Your task to perform on an android device: Clear all items from cart on bestbuy. Add "razer deathadder" to the cart on bestbuy, then select checkout. Image 0: 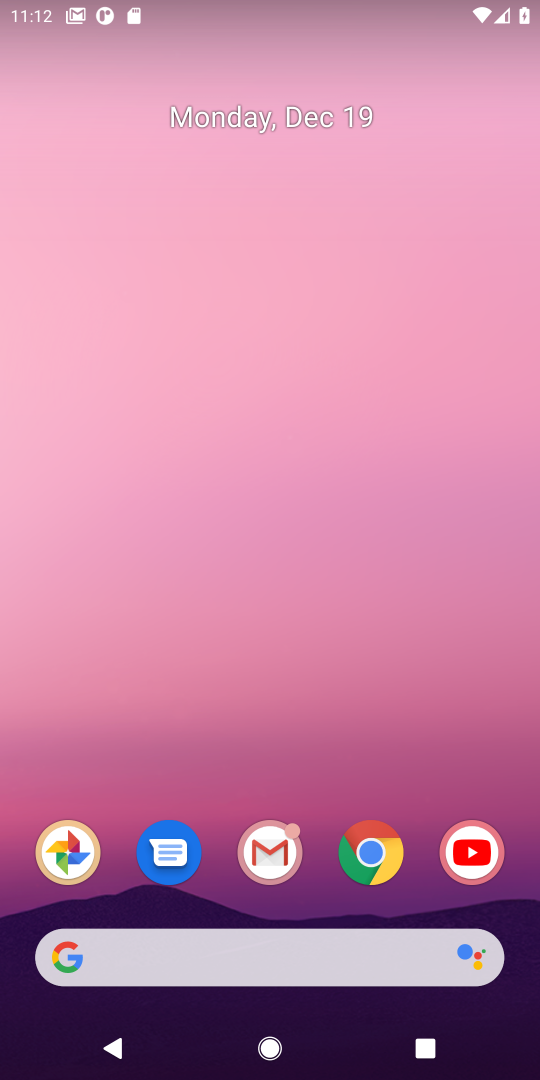
Step 0: click (377, 858)
Your task to perform on an android device: Clear all items from cart on bestbuy. Add "razer deathadder" to the cart on bestbuy, then select checkout. Image 1: 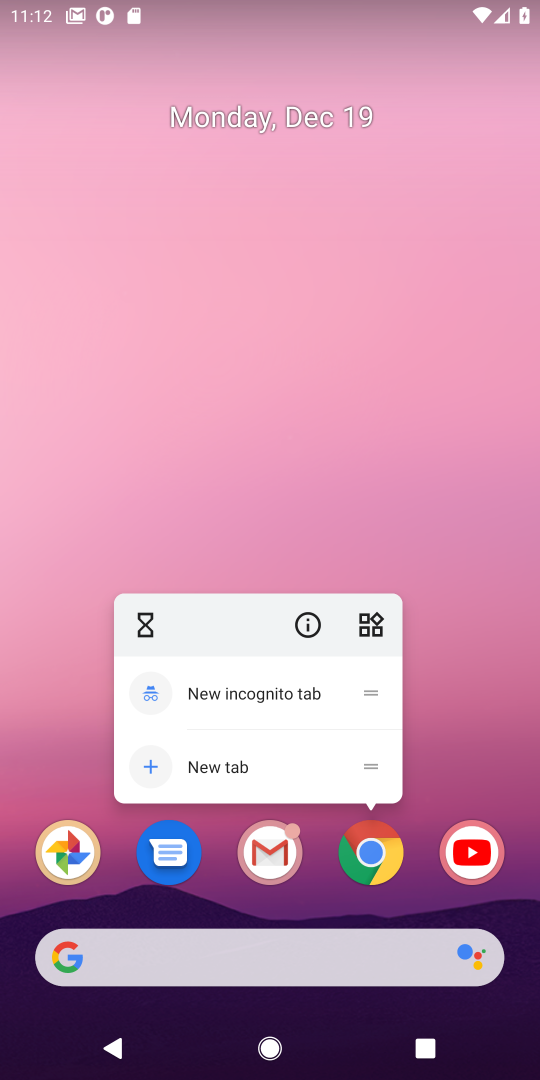
Step 1: click (381, 862)
Your task to perform on an android device: Clear all items from cart on bestbuy. Add "razer deathadder" to the cart on bestbuy, then select checkout. Image 2: 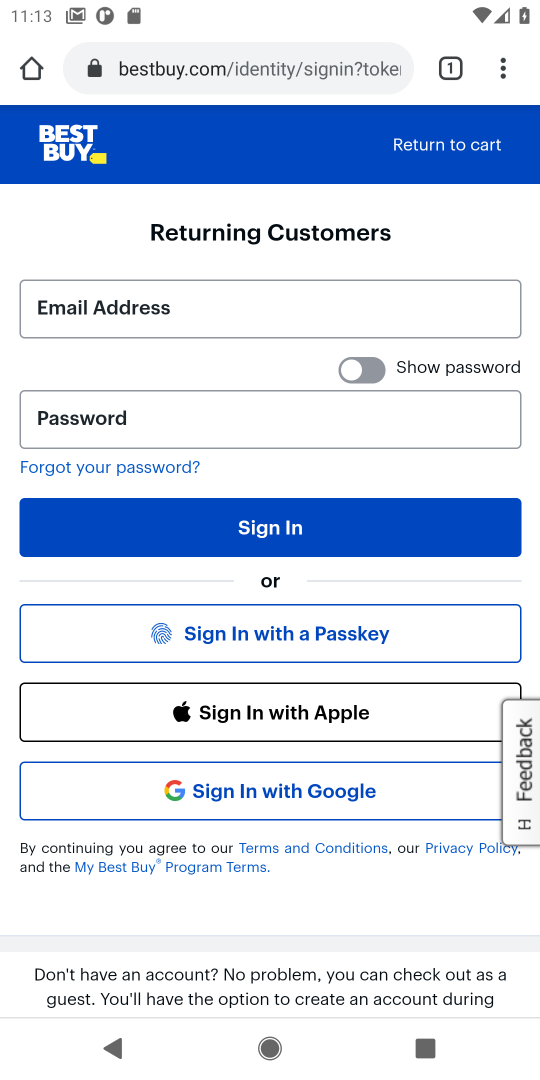
Step 2: press back button
Your task to perform on an android device: Clear all items from cart on bestbuy. Add "razer deathadder" to the cart on bestbuy, then select checkout. Image 3: 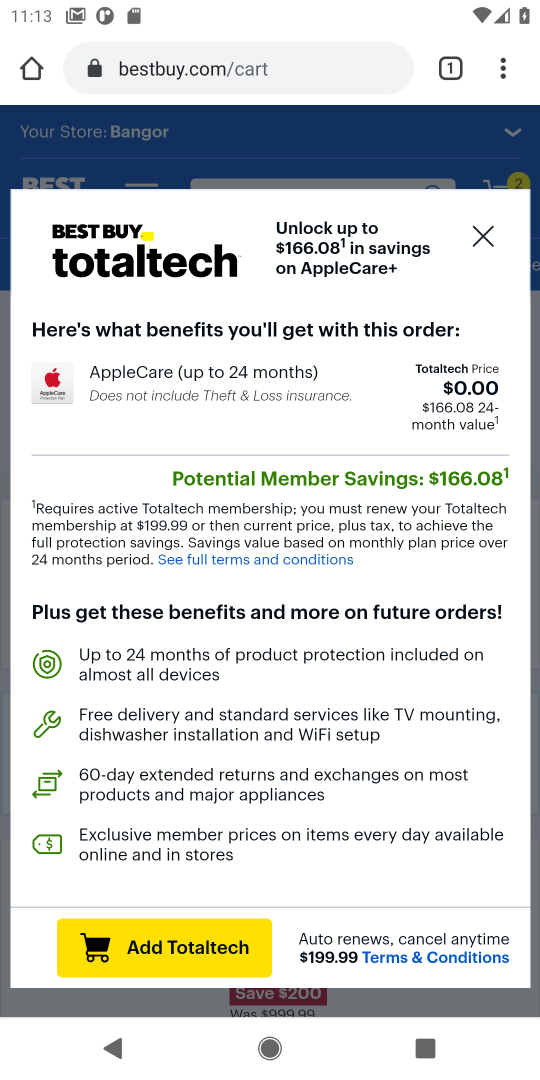
Step 3: click (478, 238)
Your task to perform on an android device: Clear all items from cart on bestbuy. Add "razer deathadder" to the cart on bestbuy, then select checkout. Image 4: 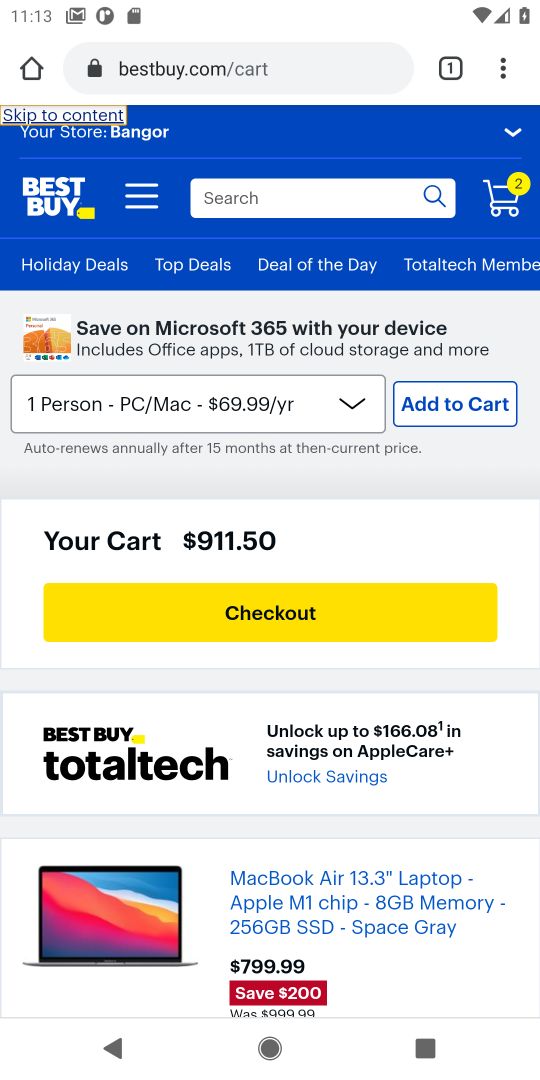
Step 4: drag from (294, 581) to (306, 303)
Your task to perform on an android device: Clear all items from cart on bestbuy. Add "razer deathadder" to the cart on bestbuy, then select checkout. Image 5: 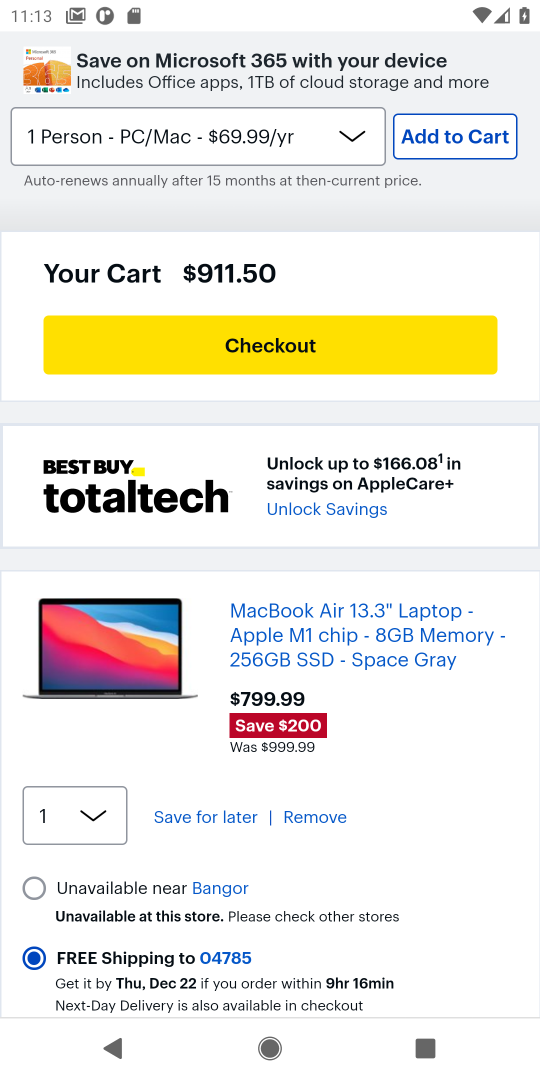
Step 5: click (316, 819)
Your task to perform on an android device: Clear all items from cart on bestbuy. Add "razer deathadder" to the cart on bestbuy, then select checkout. Image 6: 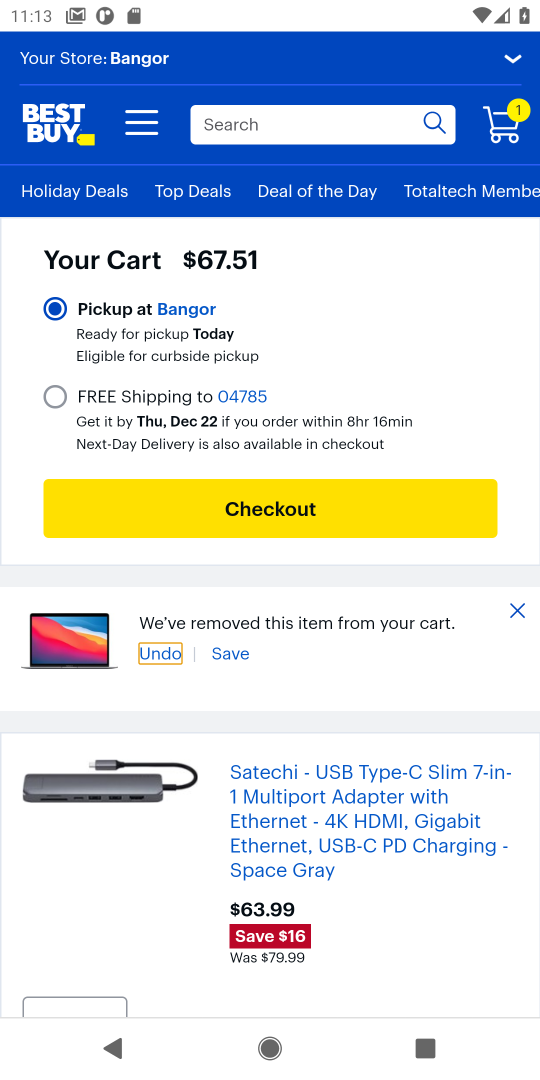
Step 6: drag from (317, 817) to (320, 457)
Your task to perform on an android device: Clear all items from cart on bestbuy. Add "razer deathadder" to the cart on bestbuy, then select checkout. Image 7: 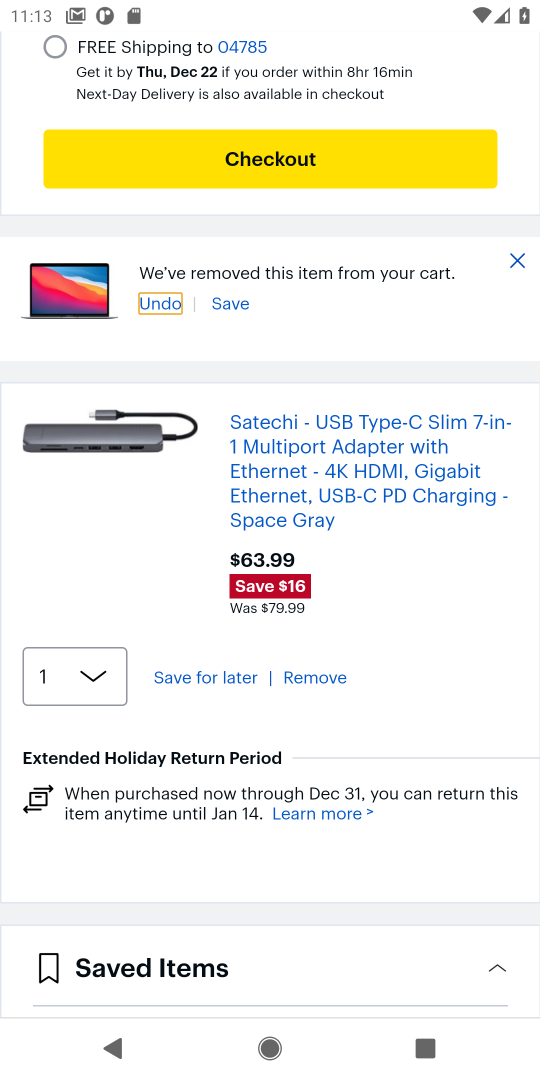
Step 7: click (325, 679)
Your task to perform on an android device: Clear all items from cart on bestbuy. Add "razer deathadder" to the cart on bestbuy, then select checkout. Image 8: 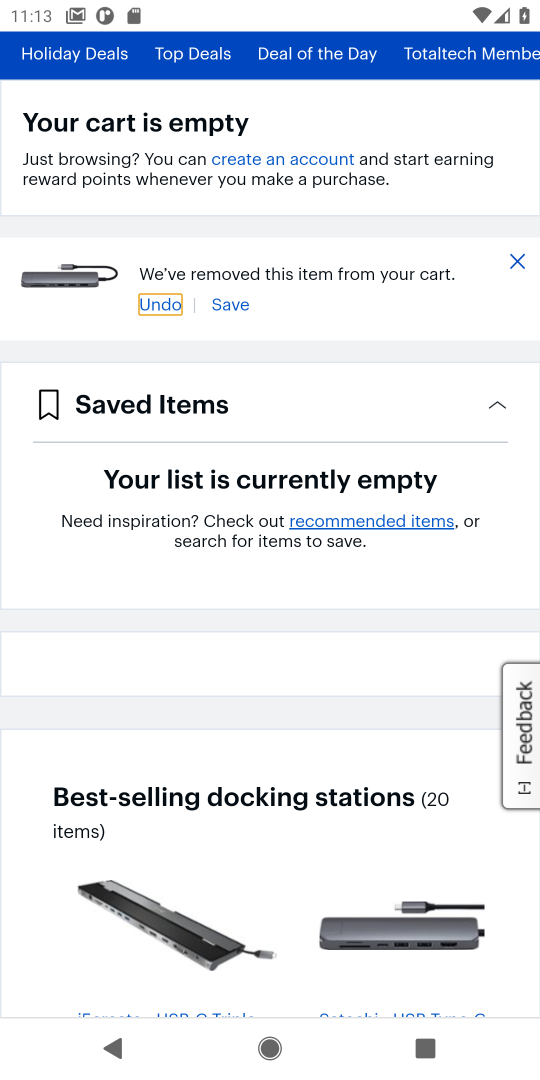
Step 8: drag from (259, 247) to (232, 753)
Your task to perform on an android device: Clear all items from cart on bestbuy. Add "razer deathadder" to the cart on bestbuy, then select checkout. Image 9: 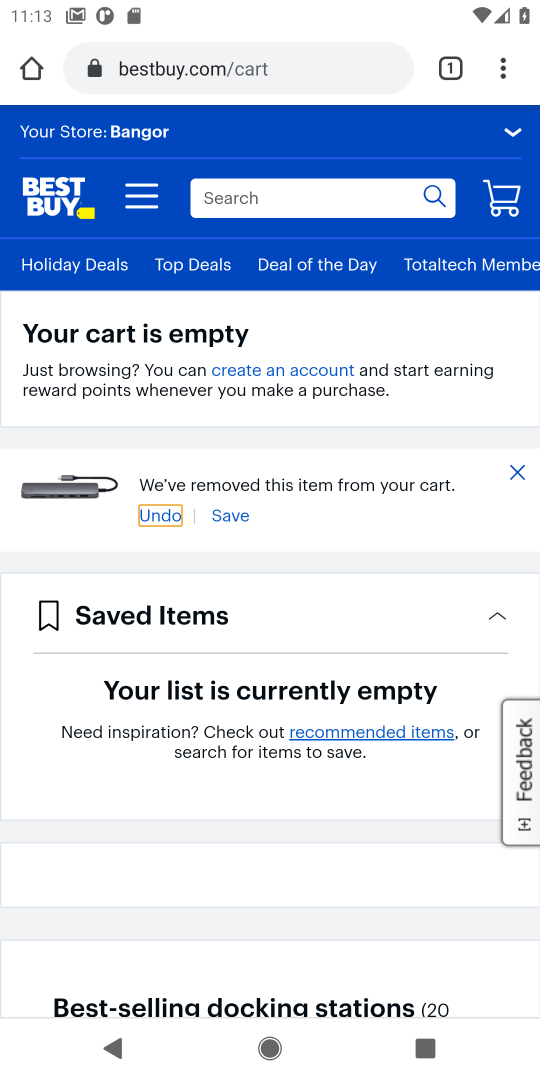
Step 9: click (225, 207)
Your task to perform on an android device: Clear all items from cart on bestbuy. Add "razer deathadder" to the cart on bestbuy, then select checkout. Image 10: 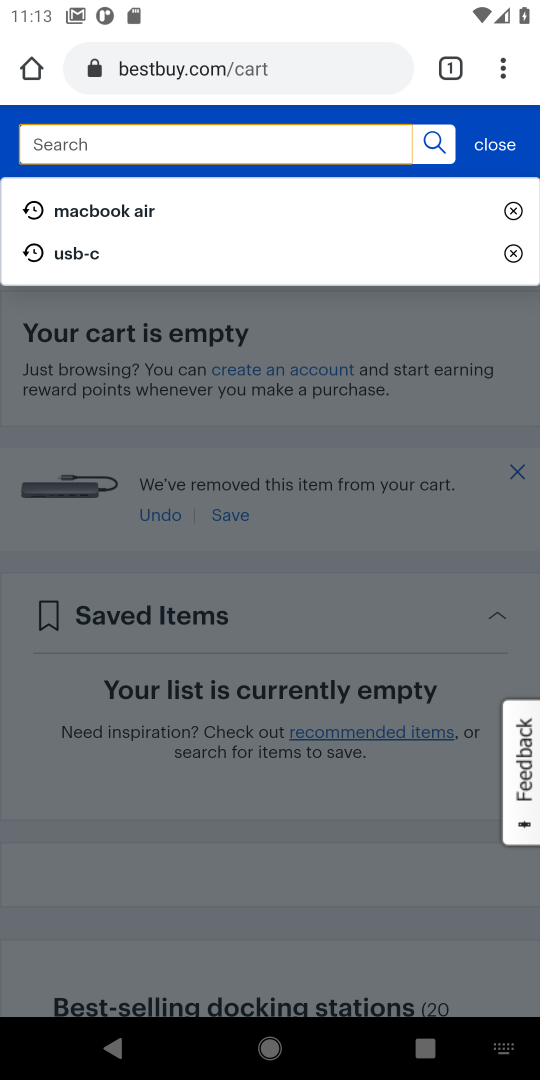
Step 10: type "razer deathadder"
Your task to perform on an android device: Clear all items from cart on bestbuy. Add "razer deathadder" to the cart on bestbuy, then select checkout. Image 11: 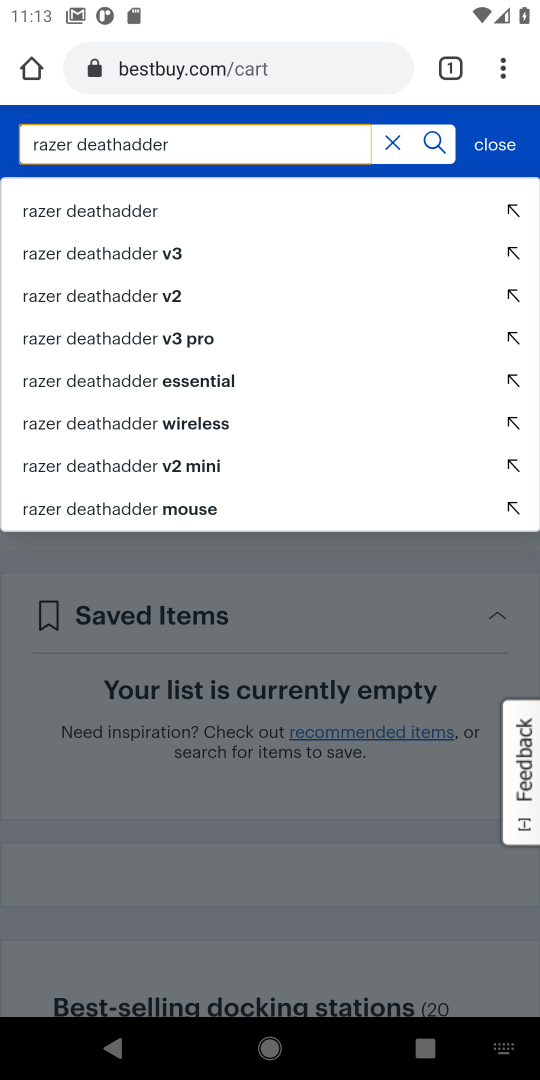
Step 11: click (80, 217)
Your task to perform on an android device: Clear all items from cart on bestbuy. Add "razer deathadder" to the cart on bestbuy, then select checkout. Image 12: 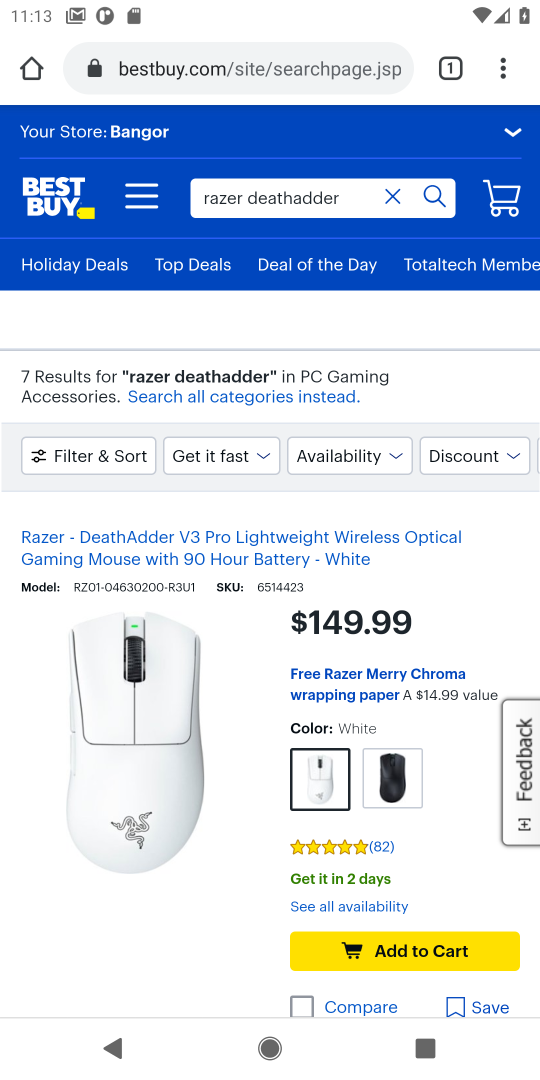
Step 12: drag from (211, 841) to (213, 608)
Your task to perform on an android device: Clear all items from cart on bestbuy. Add "razer deathadder" to the cart on bestbuy, then select checkout. Image 13: 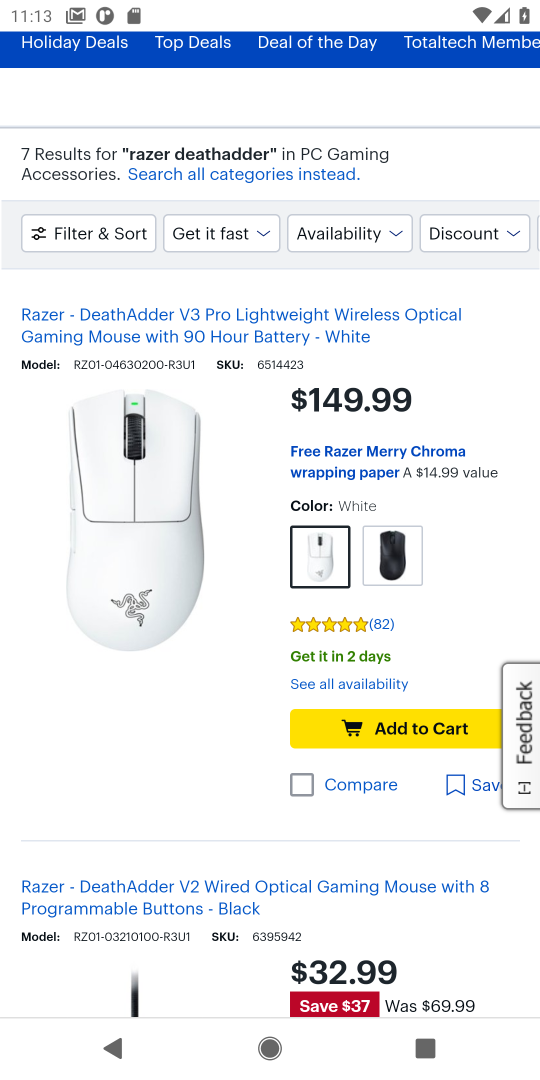
Step 13: click (376, 730)
Your task to perform on an android device: Clear all items from cart on bestbuy. Add "razer deathadder" to the cart on bestbuy, then select checkout. Image 14: 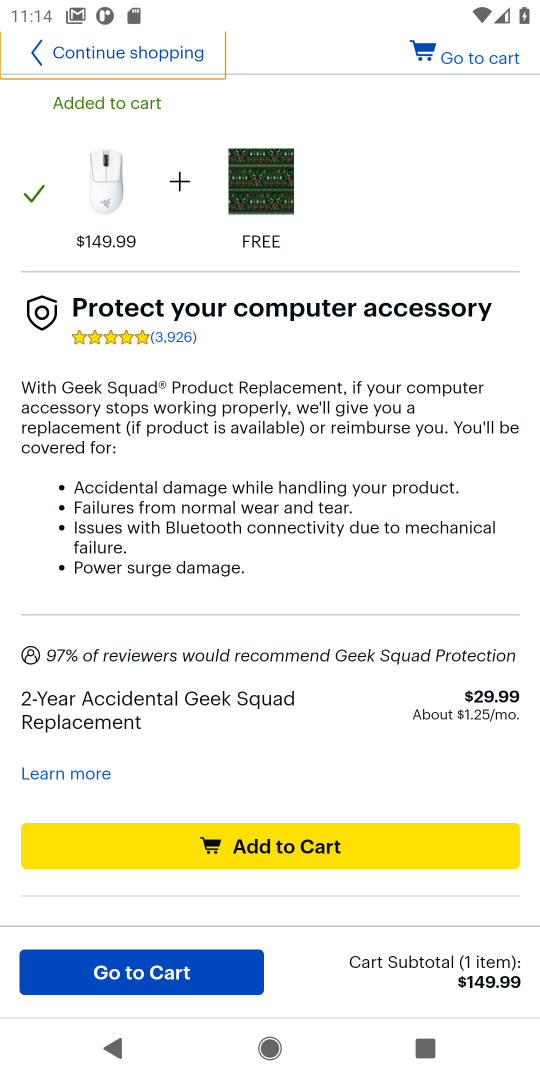
Step 14: click (470, 64)
Your task to perform on an android device: Clear all items from cart on bestbuy. Add "razer deathadder" to the cart on bestbuy, then select checkout. Image 15: 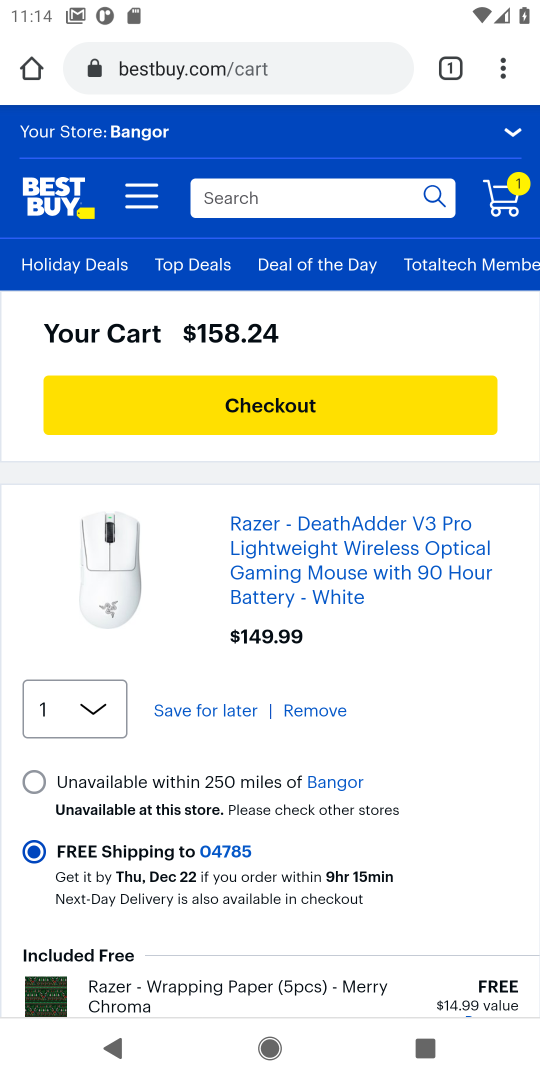
Step 15: click (267, 411)
Your task to perform on an android device: Clear all items from cart on bestbuy. Add "razer deathadder" to the cart on bestbuy, then select checkout. Image 16: 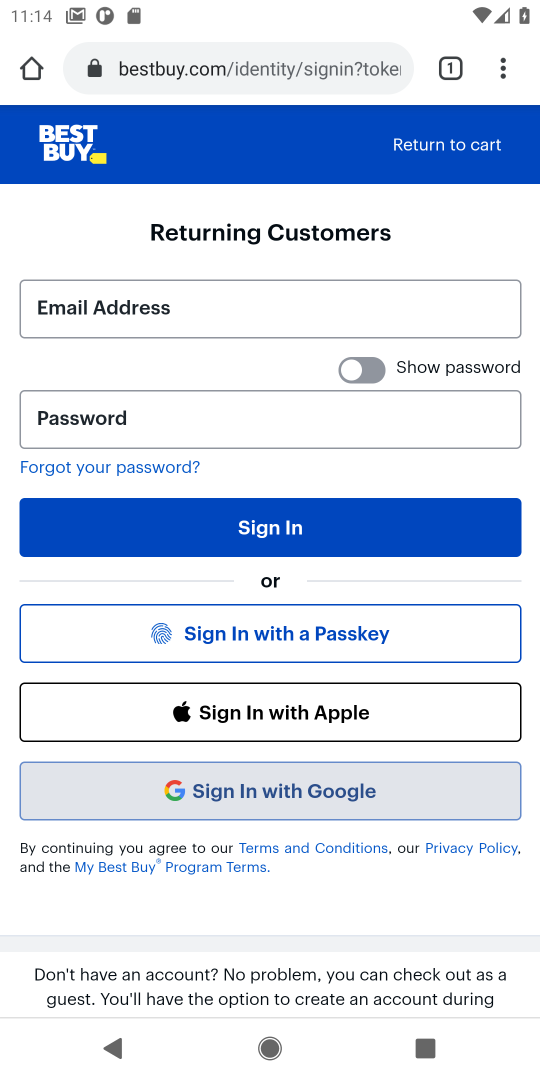
Step 16: task complete